Your task to perform on an android device: install app "Etsy: Buy & Sell Unique Items" Image 0: 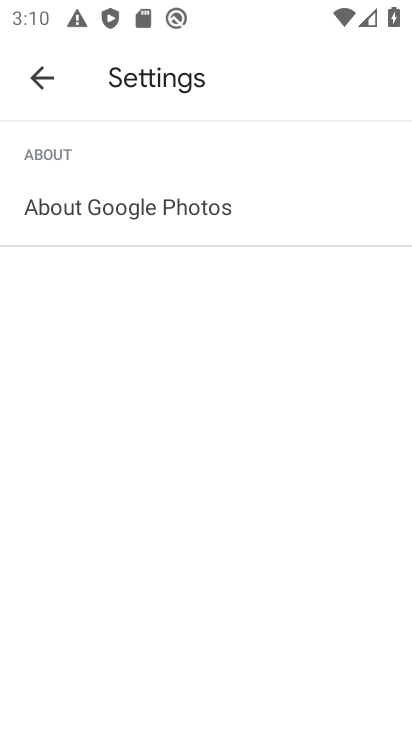
Step 0: press home button
Your task to perform on an android device: install app "Etsy: Buy & Sell Unique Items" Image 1: 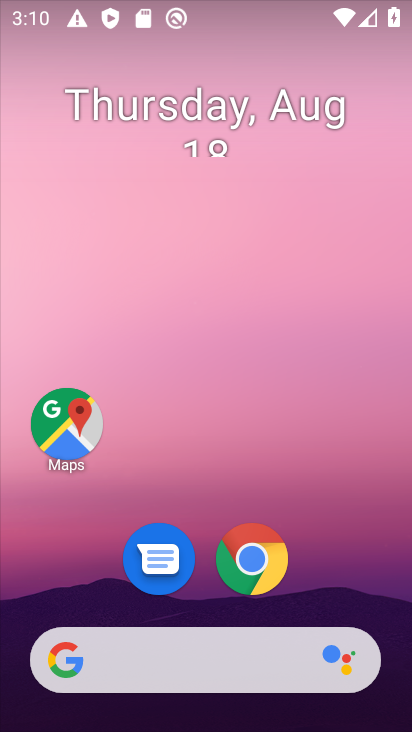
Step 1: drag from (159, 548) to (152, 0)
Your task to perform on an android device: install app "Etsy: Buy & Sell Unique Items" Image 2: 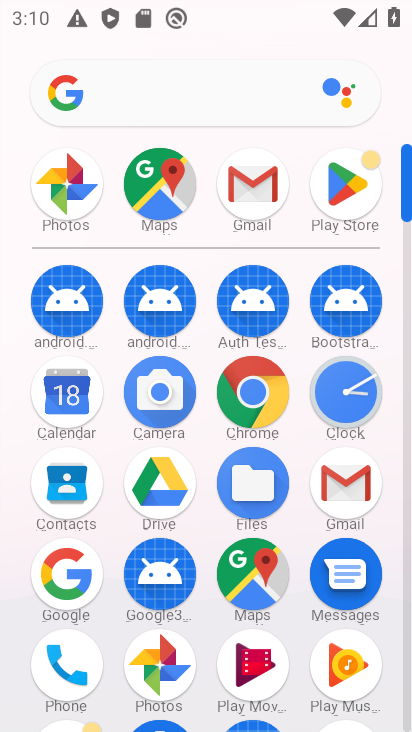
Step 2: click (344, 184)
Your task to perform on an android device: install app "Etsy: Buy & Sell Unique Items" Image 3: 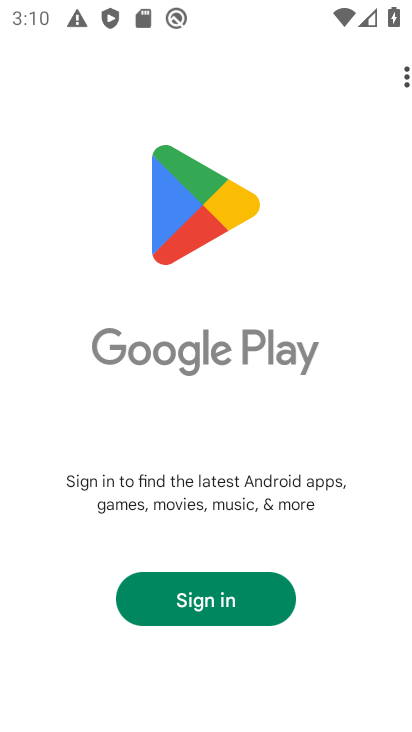
Step 3: click (201, 605)
Your task to perform on an android device: install app "Etsy: Buy & Sell Unique Items" Image 4: 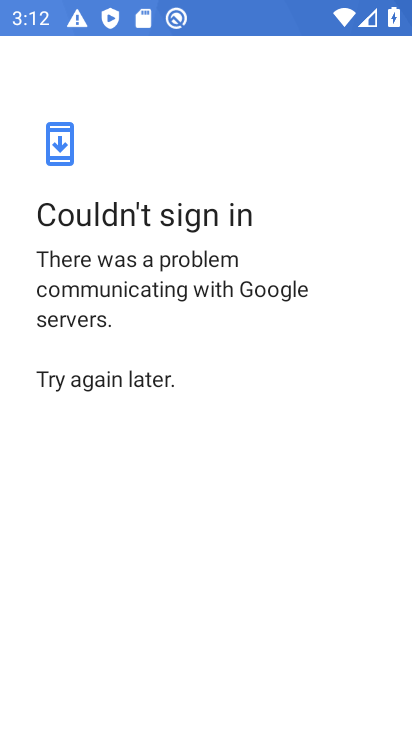
Step 4: task complete